Your task to perform on an android device: turn on notifications settings in the gmail app Image 0: 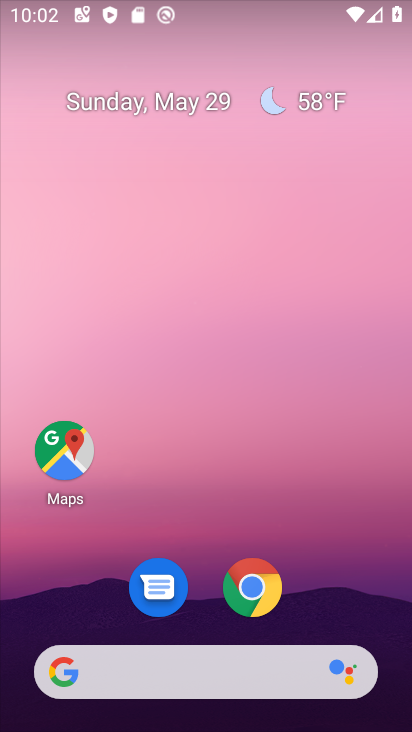
Step 0: drag from (339, 620) to (296, 225)
Your task to perform on an android device: turn on notifications settings in the gmail app Image 1: 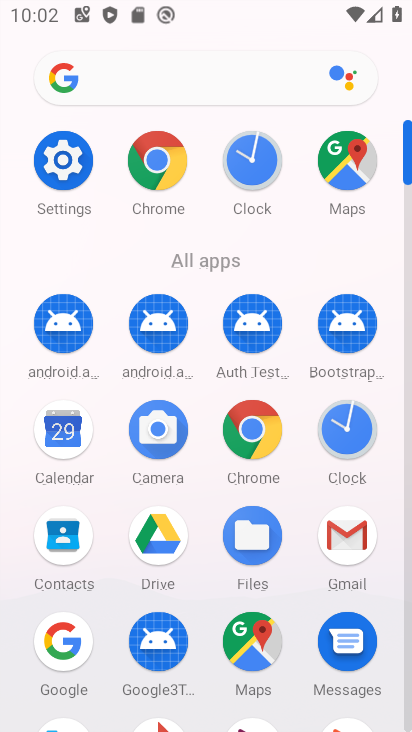
Step 1: click (369, 545)
Your task to perform on an android device: turn on notifications settings in the gmail app Image 2: 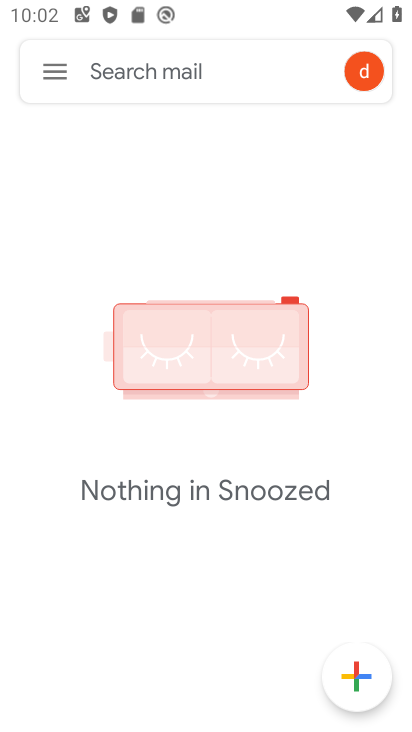
Step 2: click (56, 76)
Your task to perform on an android device: turn on notifications settings in the gmail app Image 3: 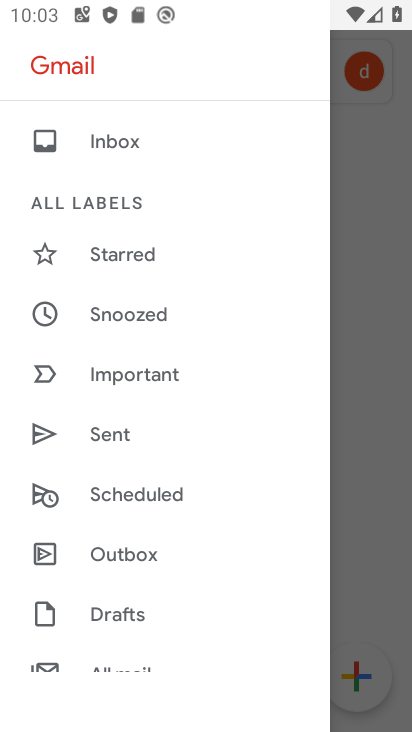
Step 3: drag from (165, 610) to (57, 59)
Your task to perform on an android device: turn on notifications settings in the gmail app Image 4: 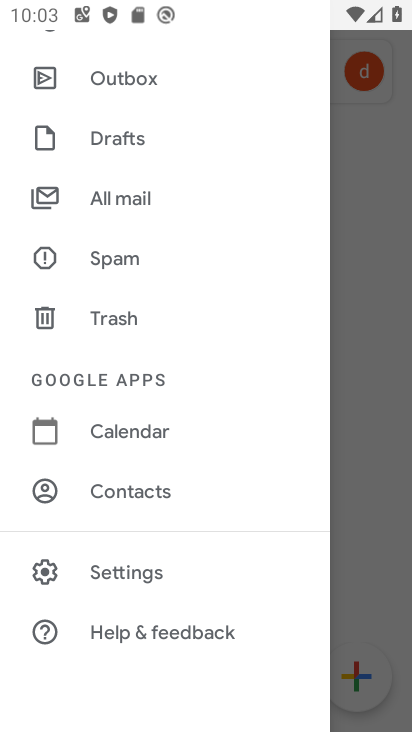
Step 4: click (184, 566)
Your task to perform on an android device: turn on notifications settings in the gmail app Image 5: 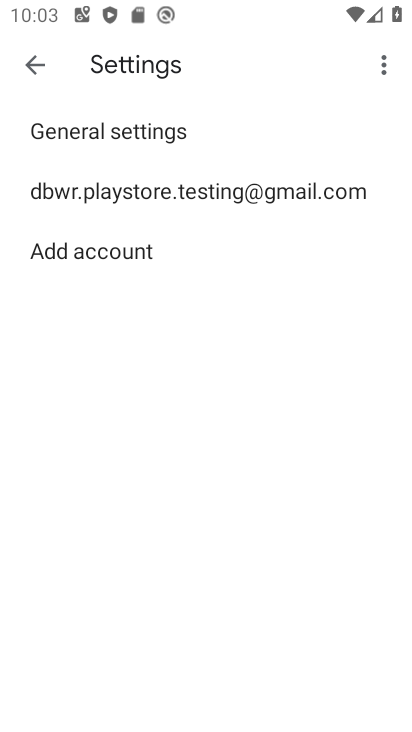
Step 5: click (179, 178)
Your task to perform on an android device: turn on notifications settings in the gmail app Image 6: 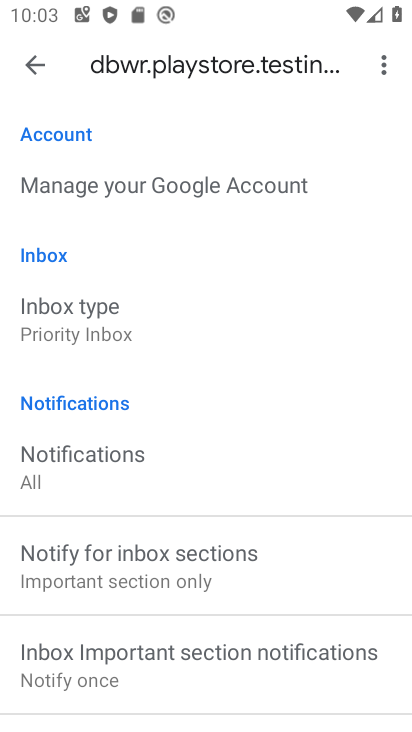
Step 6: drag from (230, 608) to (182, 19)
Your task to perform on an android device: turn on notifications settings in the gmail app Image 7: 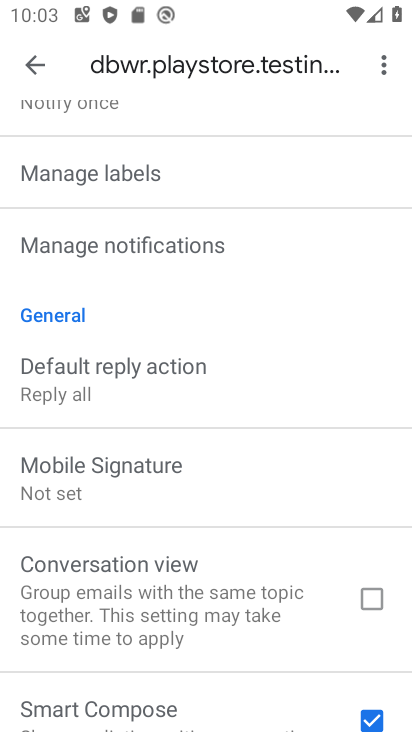
Step 7: click (224, 250)
Your task to perform on an android device: turn on notifications settings in the gmail app Image 8: 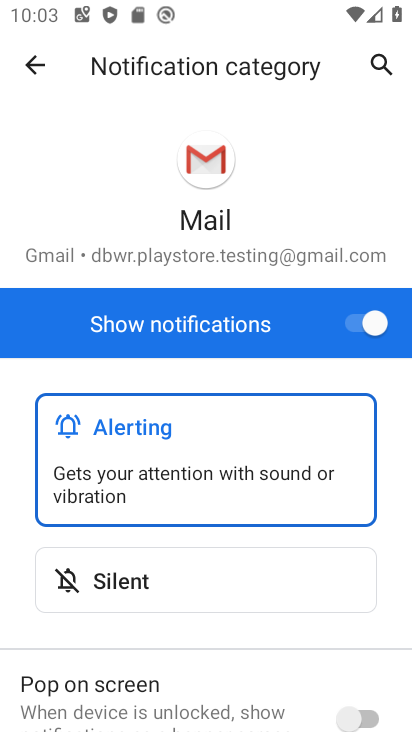
Step 8: drag from (353, 588) to (266, 237)
Your task to perform on an android device: turn on notifications settings in the gmail app Image 9: 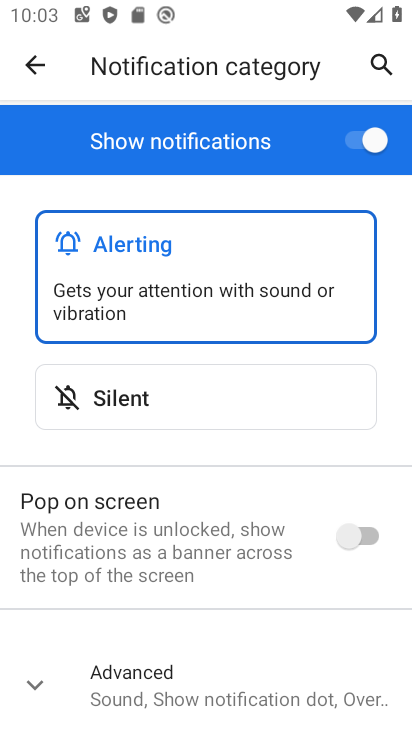
Step 9: click (366, 532)
Your task to perform on an android device: turn on notifications settings in the gmail app Image 10: 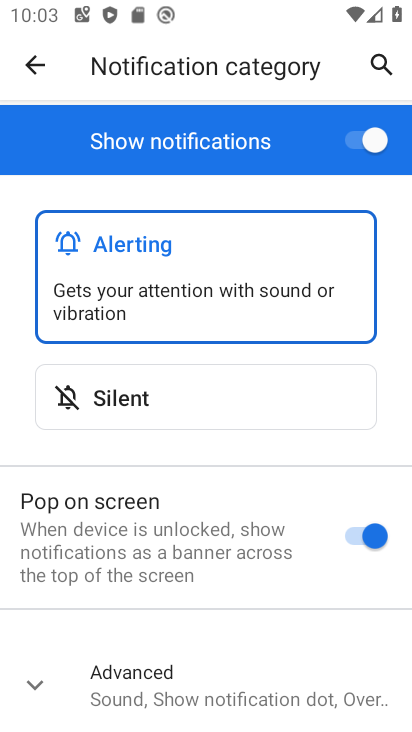
Step 10: task complete